Your task to perform on an android device: Open Yahoo.com Image 0: 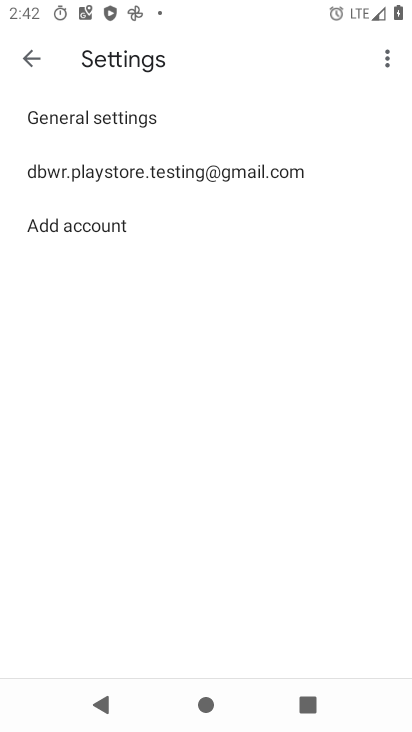
Step 0: press home button
Your task to perform on an android device: Open Yahoo.com Image 1: 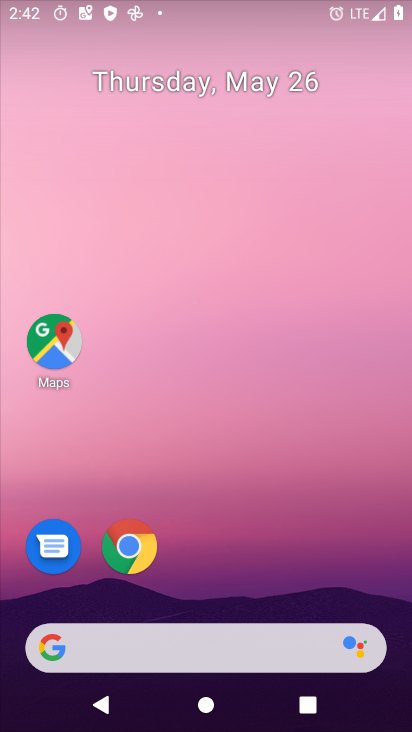
Step 1: click (134, 544)
Your task to perform on an android device: Open Yahoo.com Image 2: 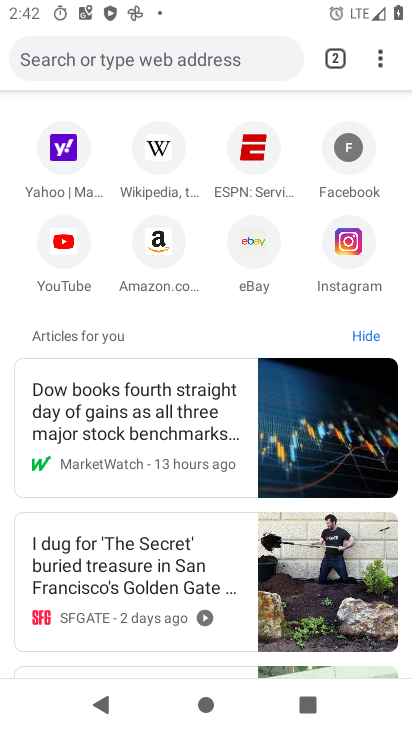
Step 2: click (60, 153)
Your task to perform on an android device: Open Yahoo.com Image 3: 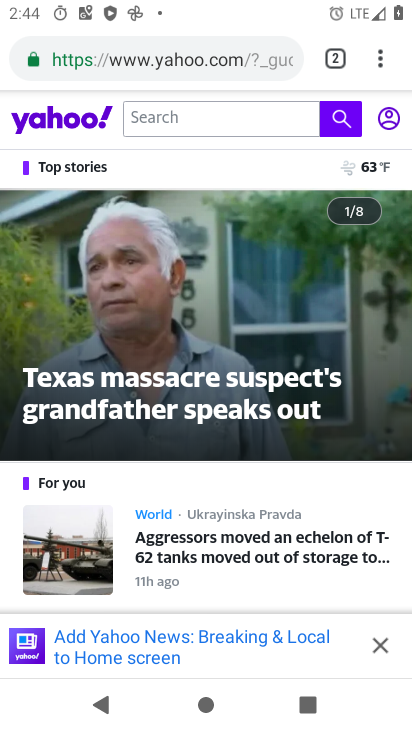
Step 3: task complete